Your task to perform on an android device: Open privacy settings Image 0: 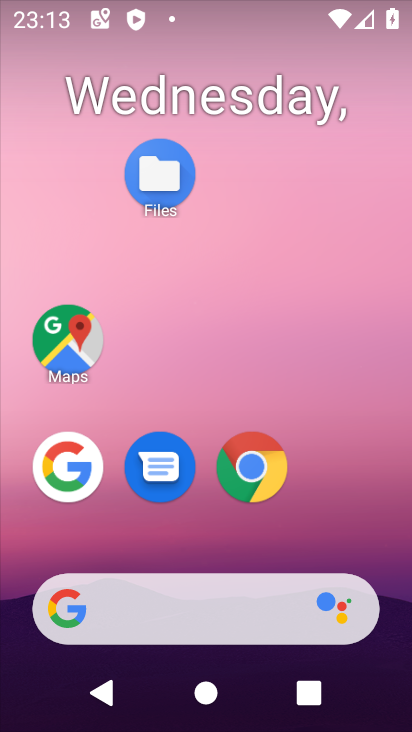
Step 0: drag from (219, 555) to (176, 92)
Your task to perform on an android device: Open privacy settings Image 1: 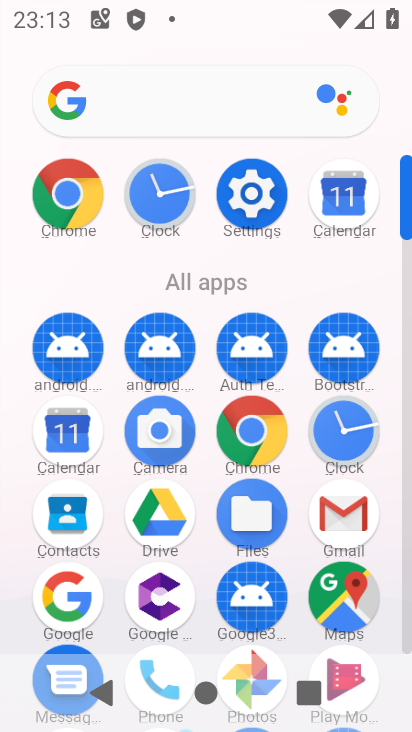
Step 1: click (243, 190)
Your task to perform on an android device: Open privacy settings Image 2: 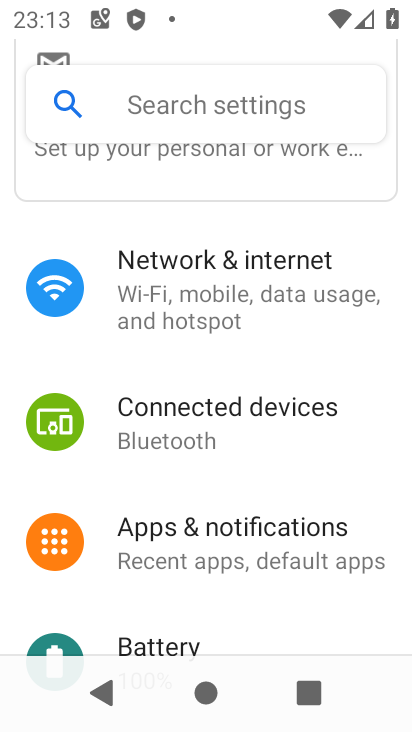
Step 2: drag from (267, 518) to (209, 86)
Your task to perform on an android device: Open privacy settings Image 3: 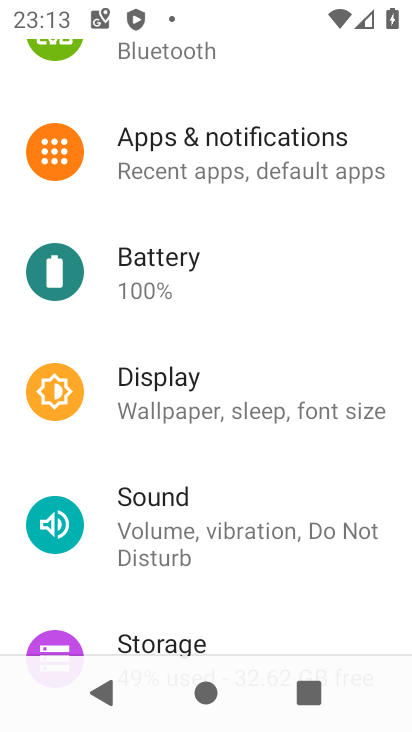
Step 3: drag from (211, 472) to (191, 188)
Your task to perform on an android device: Open privacy settings Image 4: 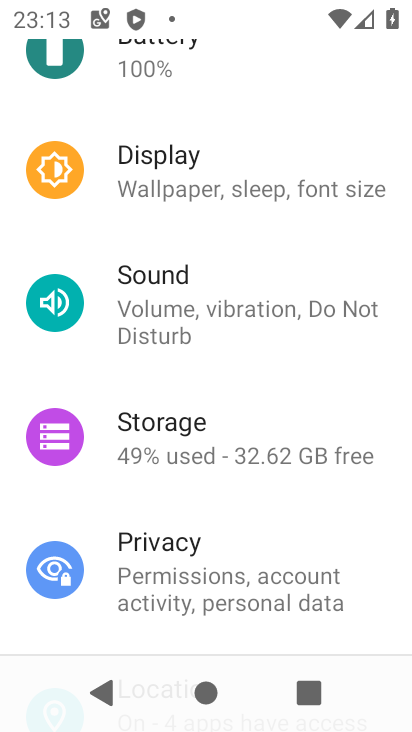
Step 4: click (179, 550)
Your task to perform on an android device: Open privacy settings Image 5: 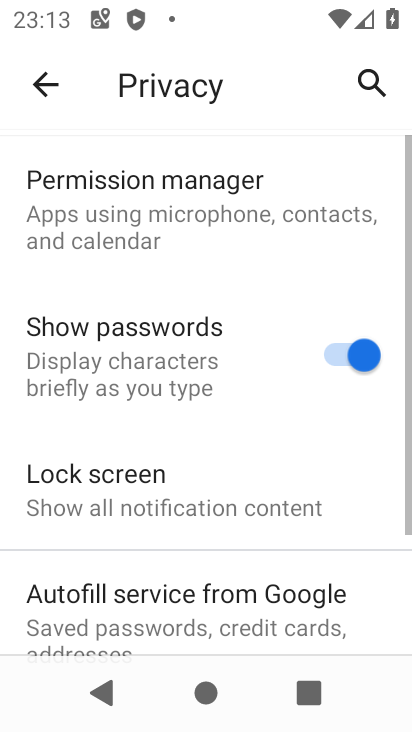
Step 5: task complete